Your task to perform on an android device: Open settings Image 0: 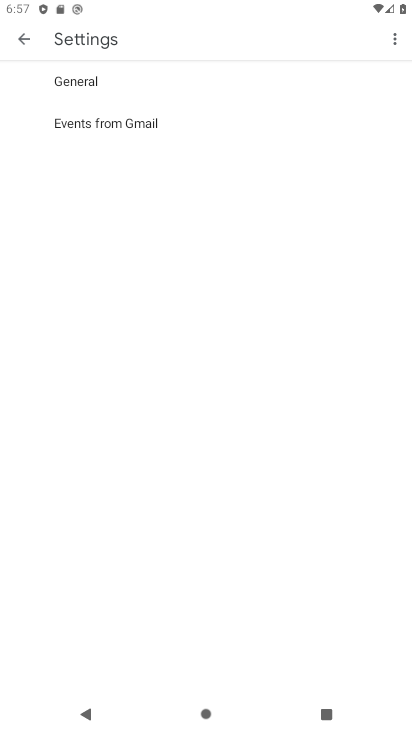
Step 0: press home button
Your task to perform on an android device: Open settings Image 1: 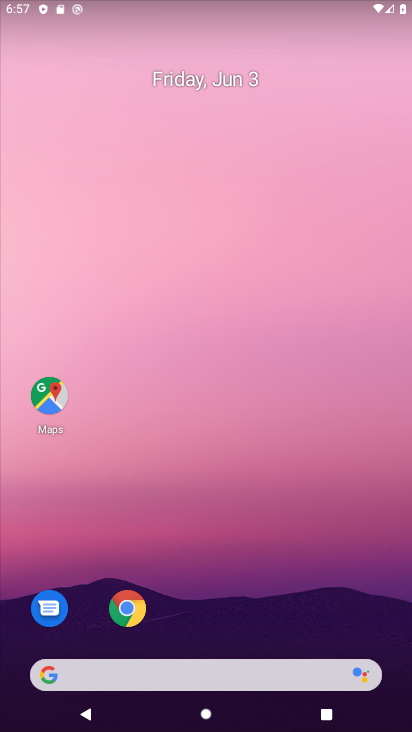
Step 1: drag from (219, 630) to (314, 5)
Your task to perform on an android device: Open settings Image 2: 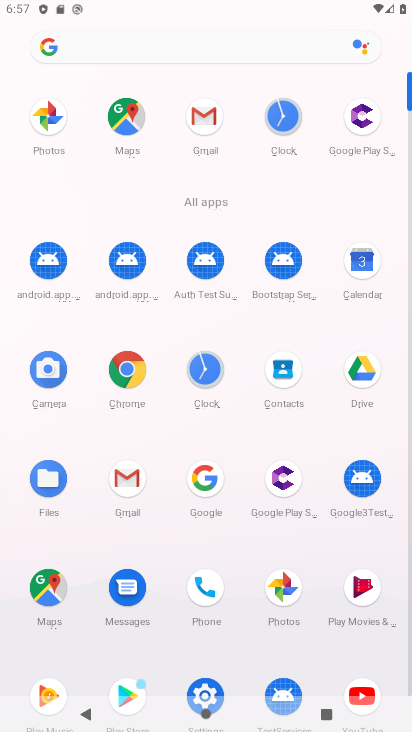
Step 2: click (201, 694)
Your task to perform on an android device: Open settings Image 3: 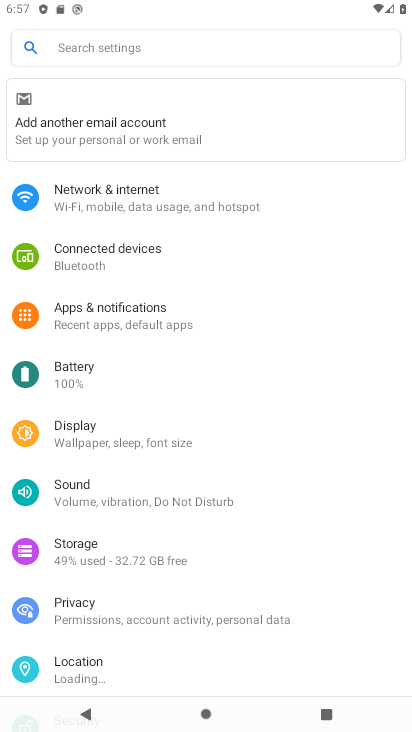
Step 3: task complete